Your task to perform on an android device: Go to Amazon Image 0: 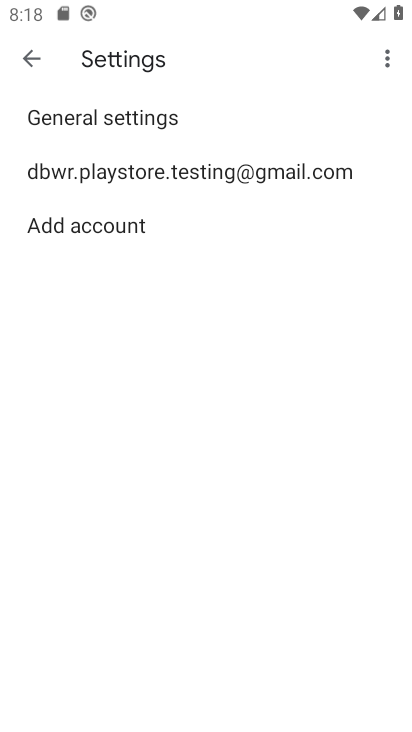
Step 0: press home button
Your task to perform on an android device: Go to Amazon Image 1: 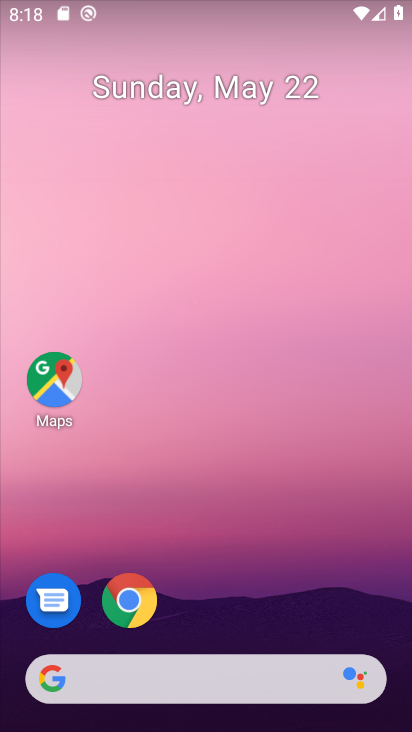
Step 1: drag from (173, 661) to (214, 276)
Your task to perform on an android device: Go to Amazon Image 2: 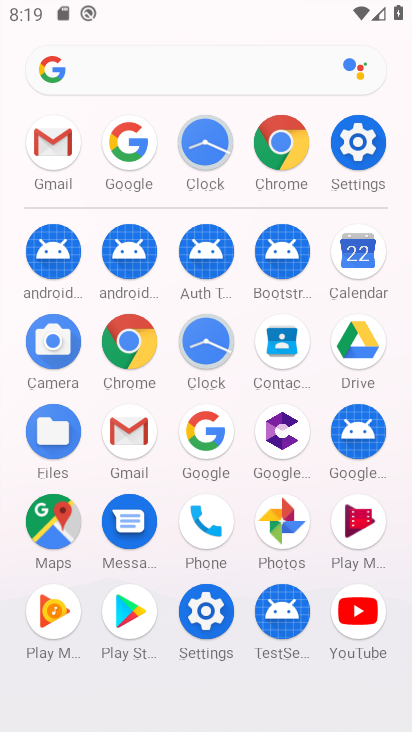
Step 2: click (291, 133)
Your task to perform on an android device: Go to Amazon Image 3: 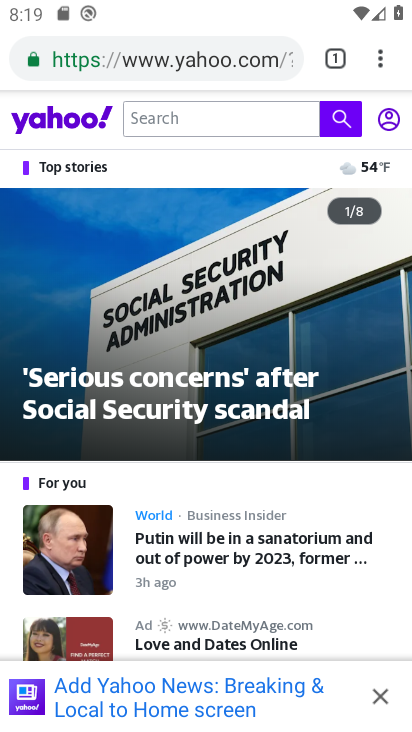
Step 3: click (339, 59)
Your task to perform on an android device: Go to Amazon Image 4: 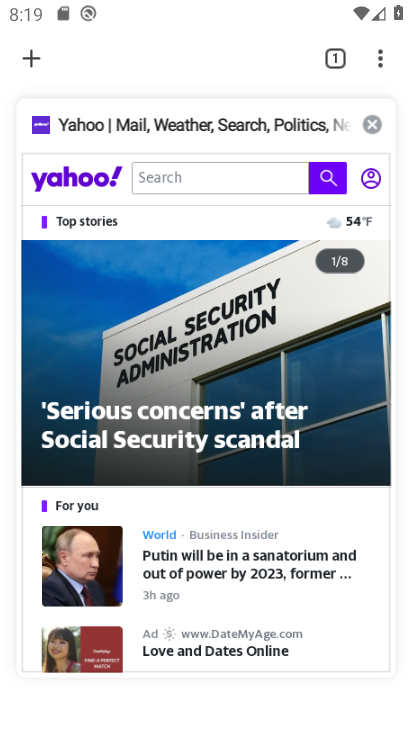
Step 4: click (368, 127)
Your task to perform on an android device: Go to Amazon Image 5: 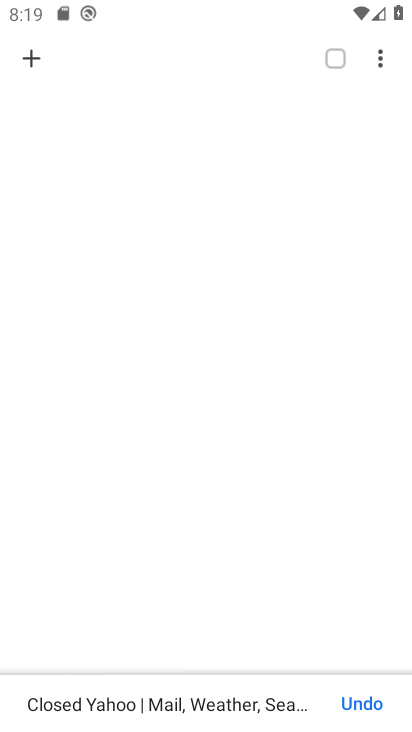
Step 5: click (23, 61)
Your task to perform on an android device: Go to Amazon Image 6: 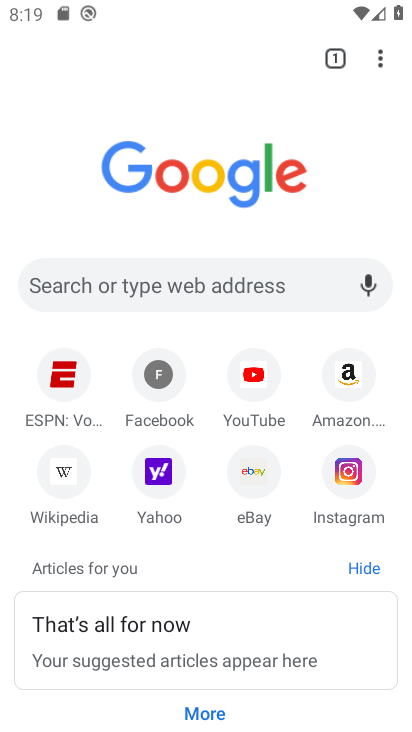
Step 6: click (350, 367)
Your task to perform on an android device: Go to Amazon Image 7: 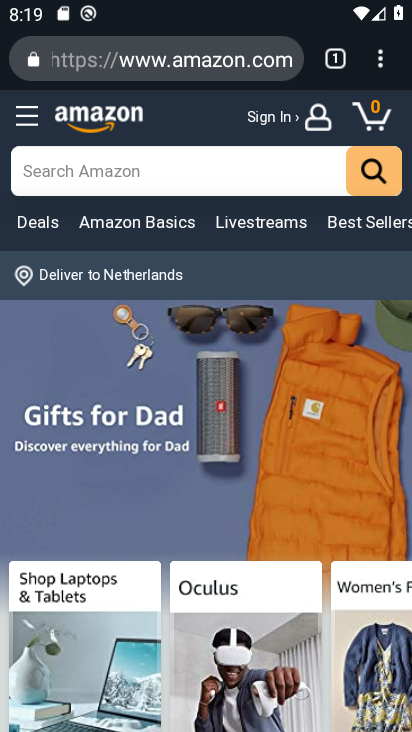
Step 7: task complete